Your task to perform on an android device: Open the stopwatch Image 0: 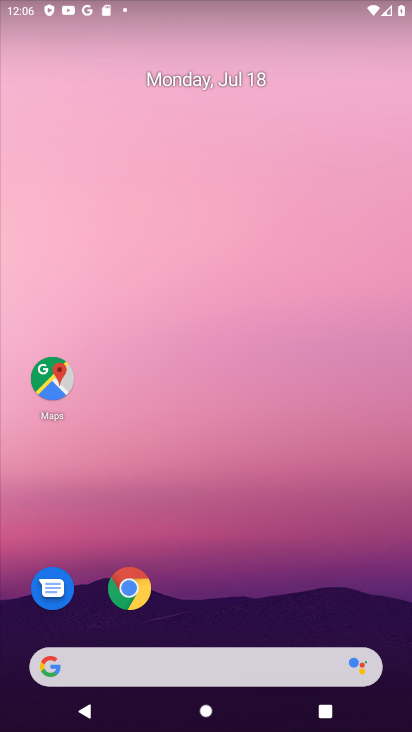
Step 0: drag from (261, 615) to (229, 21)
Your task to perform on an android device: Open the stopwatch Image 1: 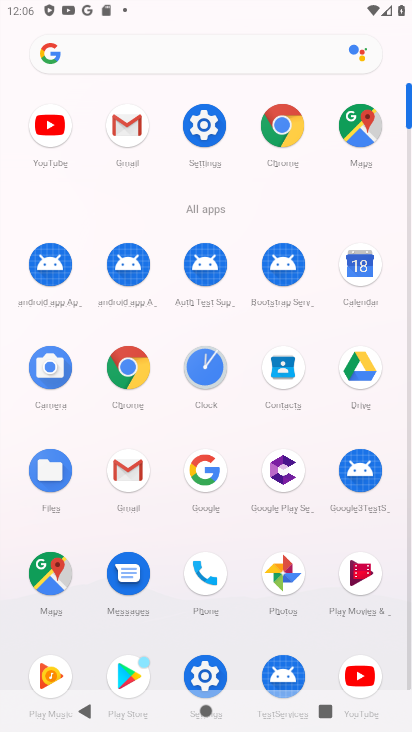
Step 1: click (203, 367)
Your task to perform on an android device: Open the stopwatch Image 2: 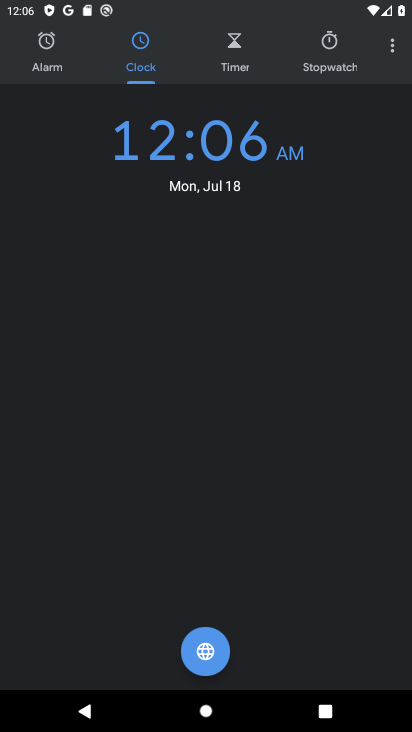
Step 2: click (304, 71)
Your task to perform on an android device: Open the stopwatch Image 3: 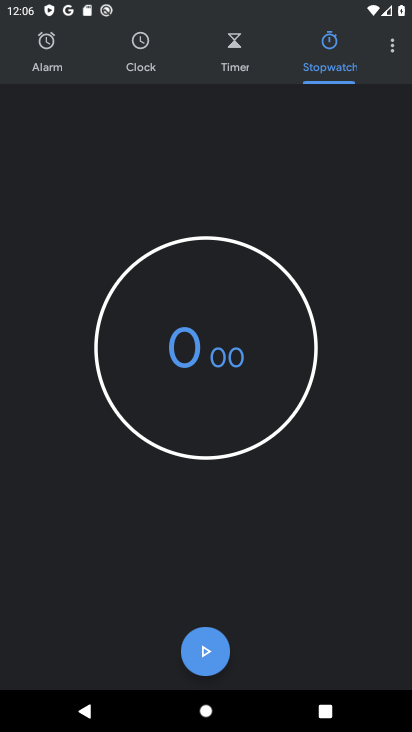
Step 3: click (202, 649)
Your task to perform on an android device: Open the stopwatch Image 4: 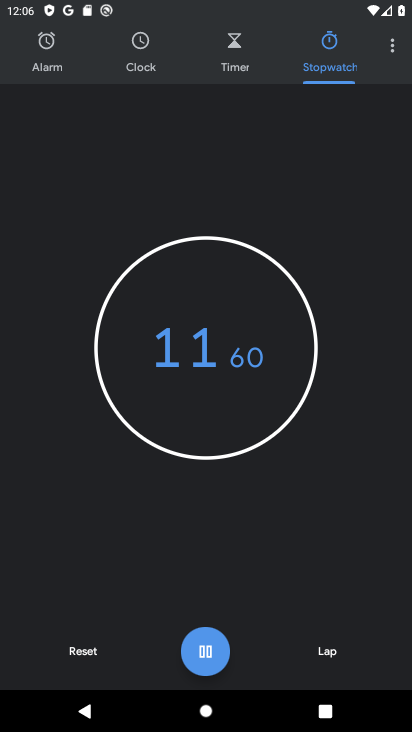
Step 4: task complete